Your task to perform on an android device: turn on javascript in the chrome app Image 0: 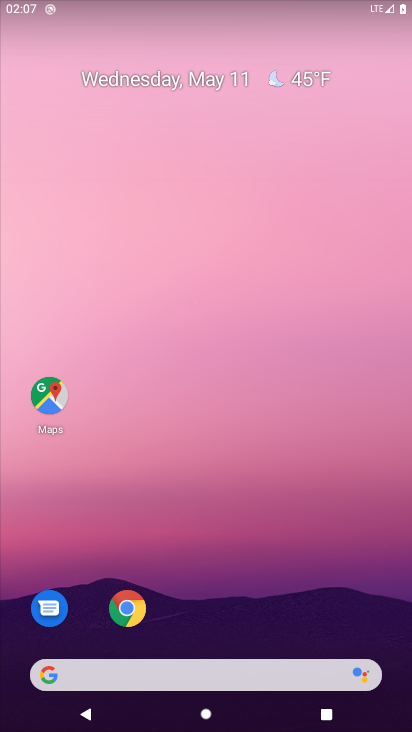
Step 0: press home button
Your task to perform on an android device: turn on javascript in the chrome app Image 1: 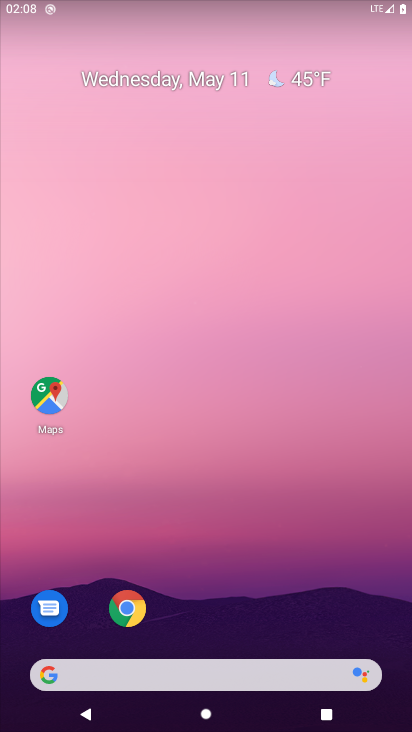
Step 1: click (131, 608)
Your task to perform on an android device: turn on javascript in the chrome app Image 2: 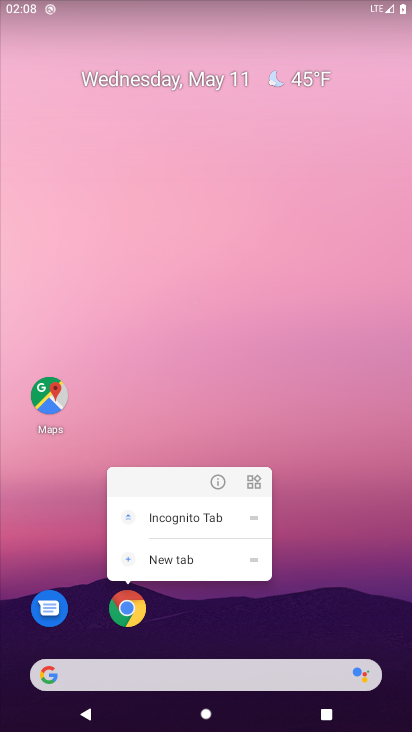
Step 2: click (232, 333)
Your task to perform on an android device: turn on javascript in the chrome app Image 3: 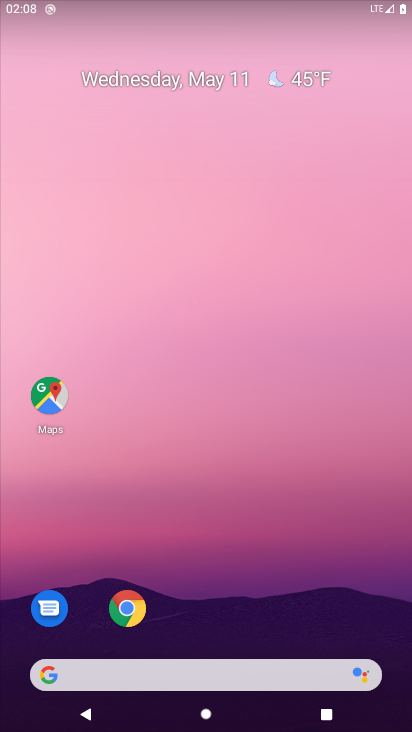
Step 3: click (128, 604)
Your task to perform on an android device: turn on javascript in the chrome app Image 4: 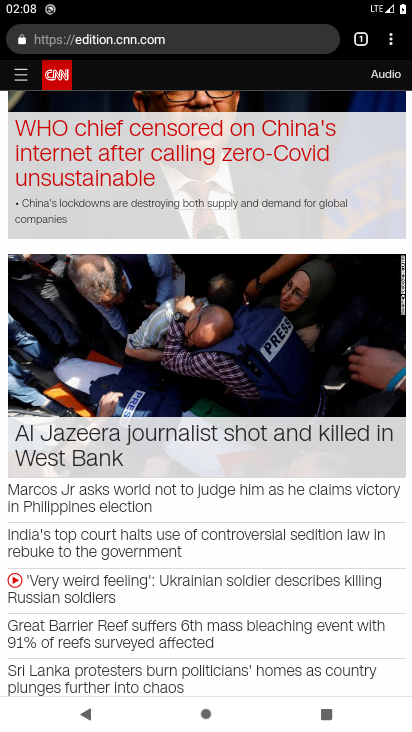
Step 4: click (394, 36)
Your task to perform on an android device: turn on javascript in the chrome app Image 5: 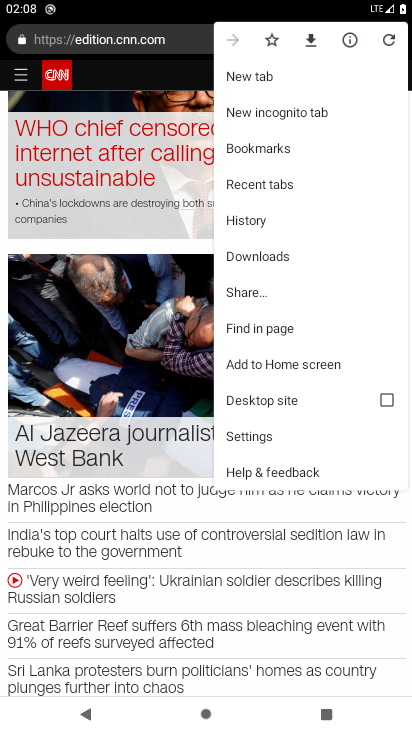
Step 5: click (280, 429)
Your task to perform on an android device: turn on javascript in the chrome app Image 6: 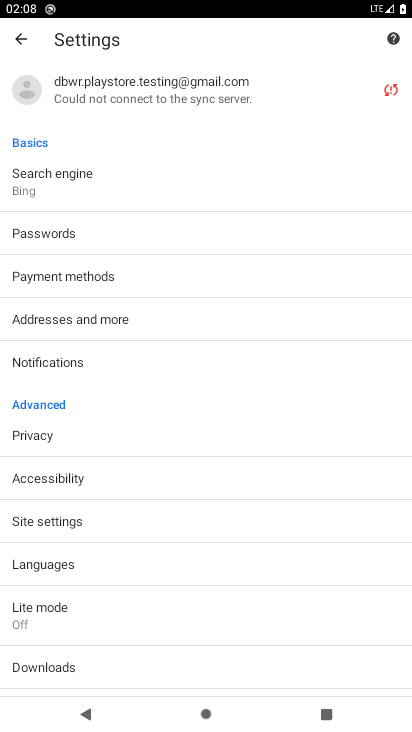
Step 6: click (90, 519)
Your task to perform on an android device: turn on javascript in the chrome app Image 7: 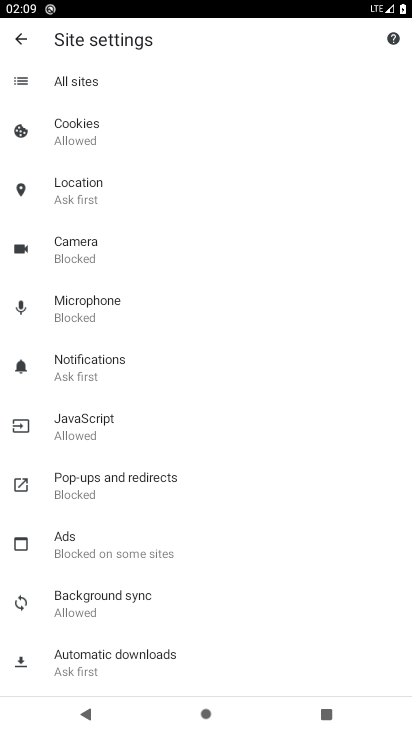
Step 7: click (125, 423)
Your task to perform on an android device: turn on javascript in the chrome app Image 8: 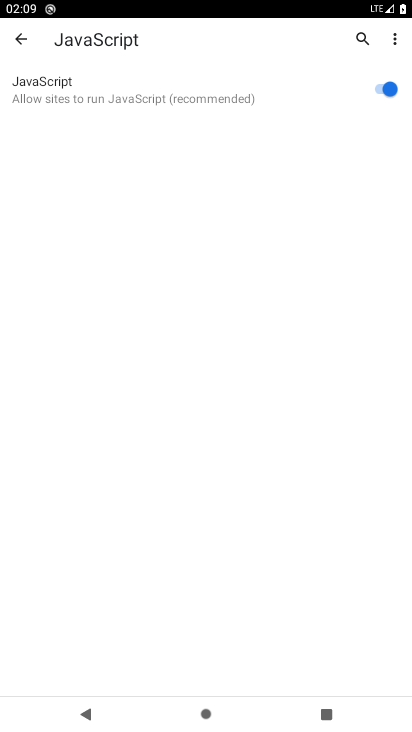
Step 8: task complete